Your task to perform on an android device: Open calendar and show me the third week of next month Image 0: 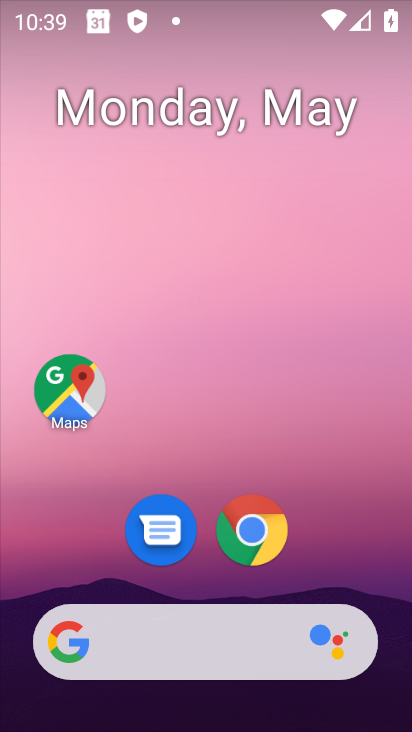
Step 0: drag from (305, 572) to (245, 3)
Your task to perform on an android device: Open calendar and show me the third week of next month Image 1: 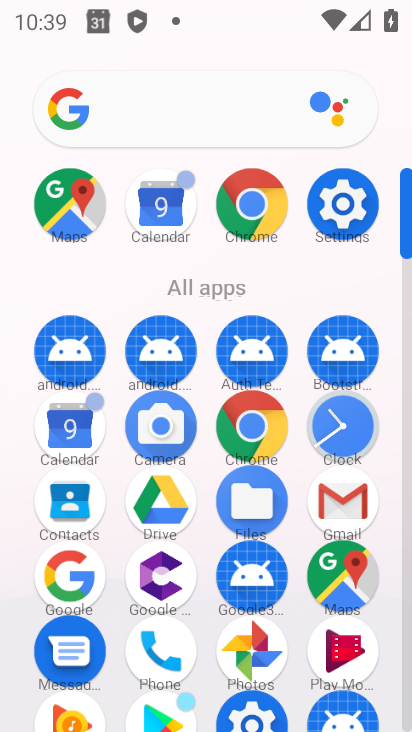
Step 1: click (162, 205)
Your task to perform on an android device: Open calendar and show me the third week of next month Image 2: 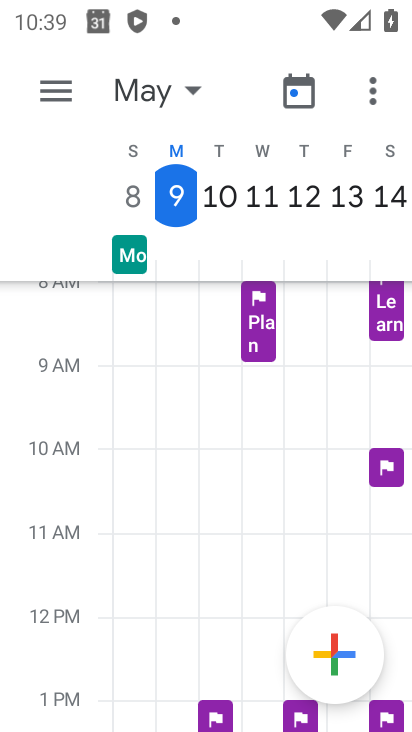
Step 2: click (298, 91)
Your task to perform on an android device: Open calendar and show me the third week of next month Image 3: 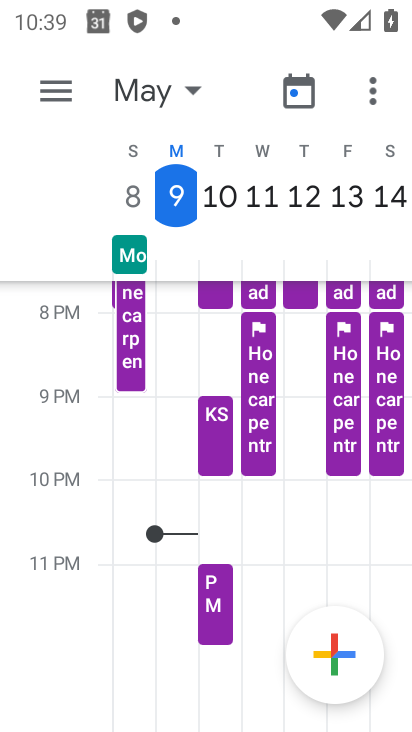
Step 3: click (196, 90)
Your task to perform on an android device: Open calendar and show me the third week of next month Image 4: 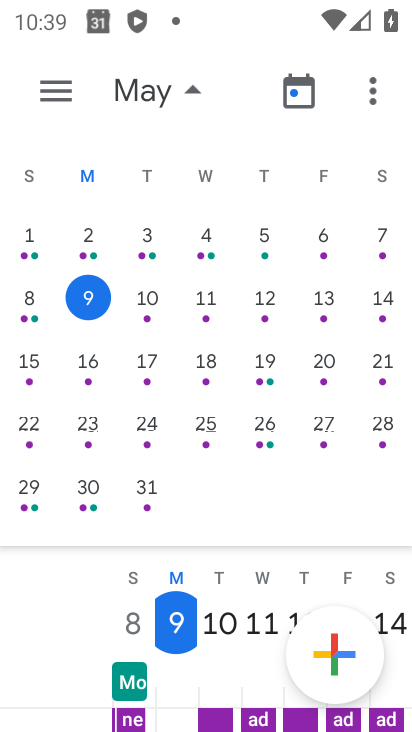
Step 4: drag from (391, 340) to (10, 350)
Your task to perform on an android device: Open calendar and show me the third week of next month Image 5: 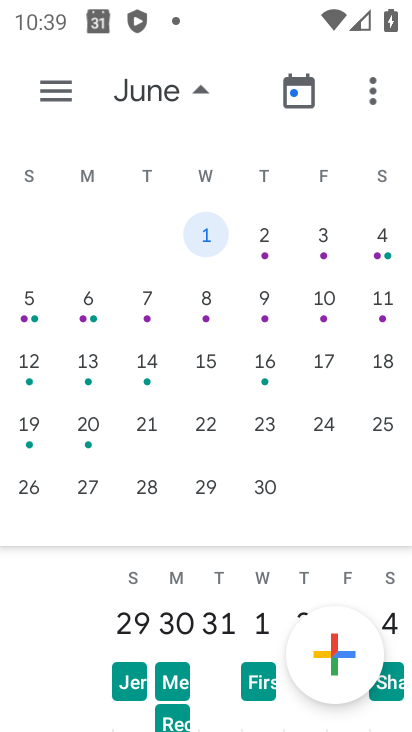
Step 5: click (81, 423)
Your task to perform on an android device: Open calendar and show me the third week of next month Image 6: 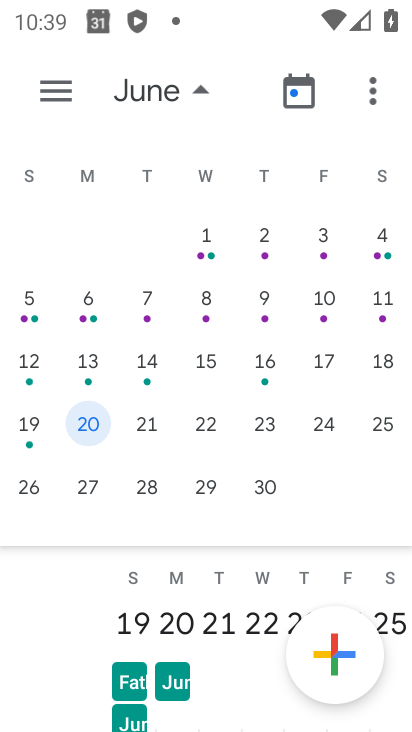
Step 6: click (59, 94)
Your task to perform on an android device: Open calendar and show me the third week of next month Image 7: 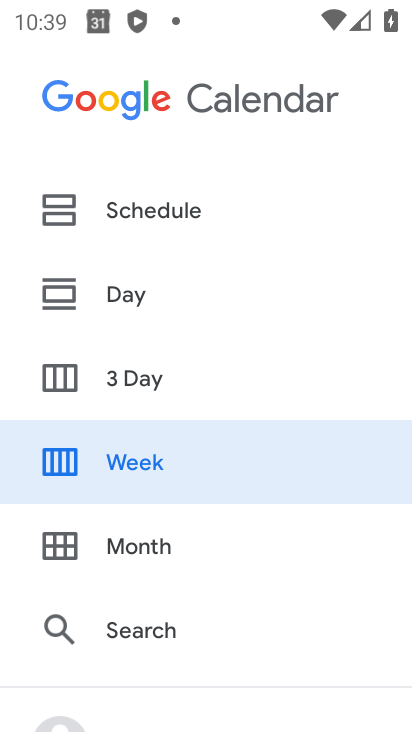
Step 7: click (155, 452)
Your task to perform on an android device: Open calendar and show me the third week of next month Image 8: 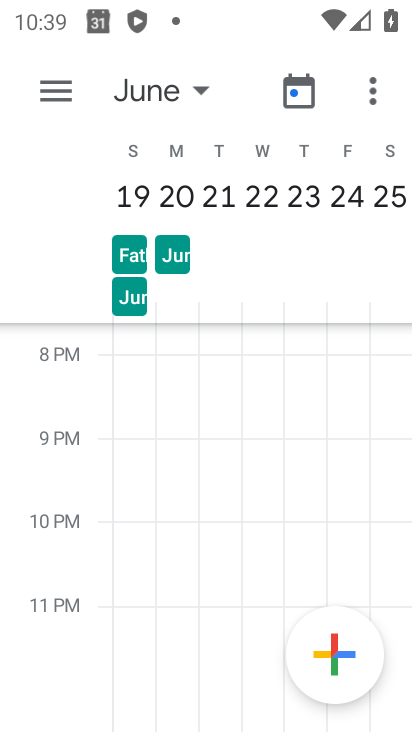
Step 8: task complete